Your task to perform on an android device: Go to sound settings Image 0: 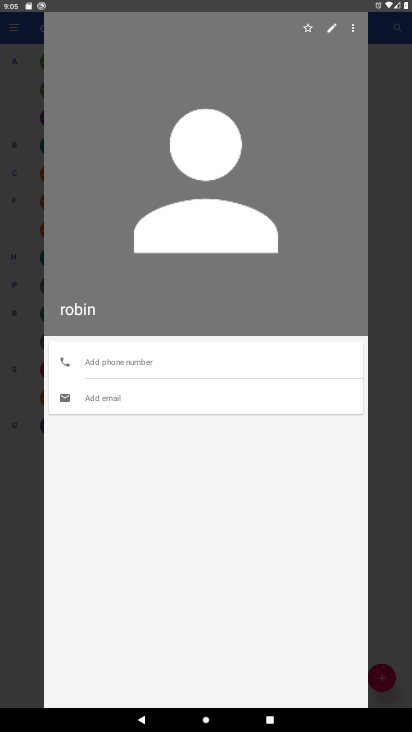
Step 0: press home button
Your task to perform on an android device: Go to sound settings Image 1: 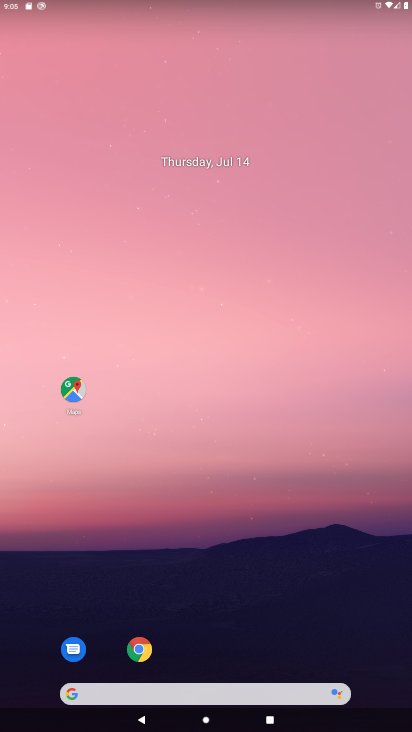
Step 1: drag from (194, 652) to (237, 15)
Your task to perform on an android device: Go to sound settings Image 2: 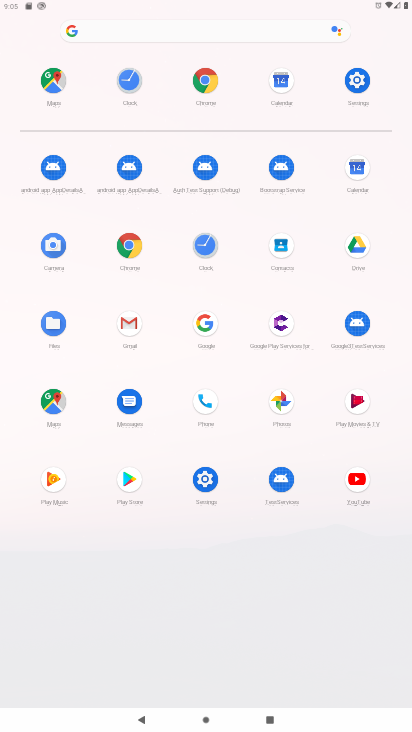
Step 2: click (210, 495)
Your task to perform on an android device: Go to sound settings Image 3: 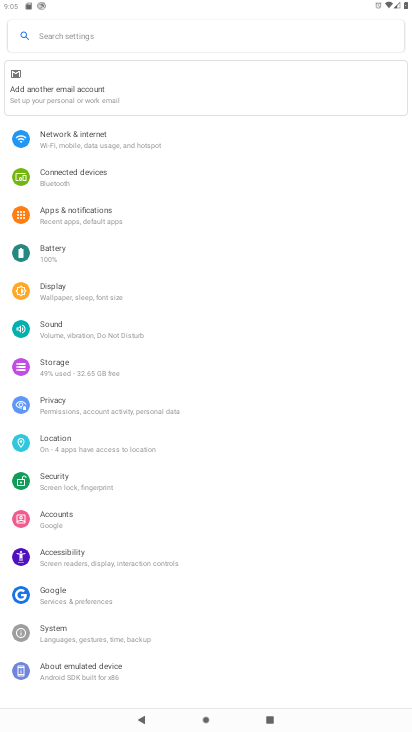
Step 3: click (66, 321)
Your task to perform on an android device: Go to sound settings Image 4: 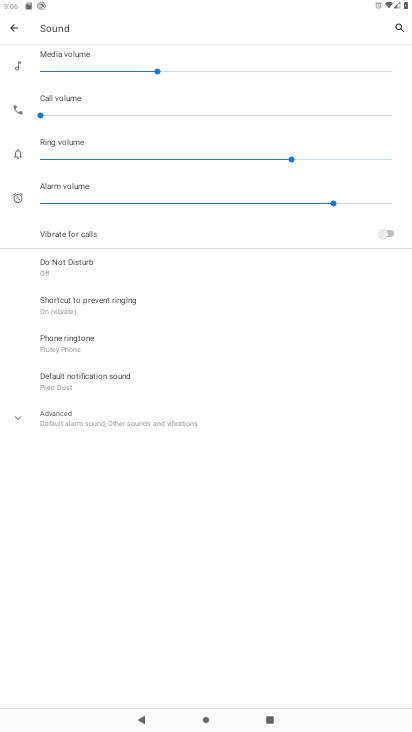
Step 4: task complete